Your task to perform on an android device: Show me some nice wallpapers for my desktop Image 0: 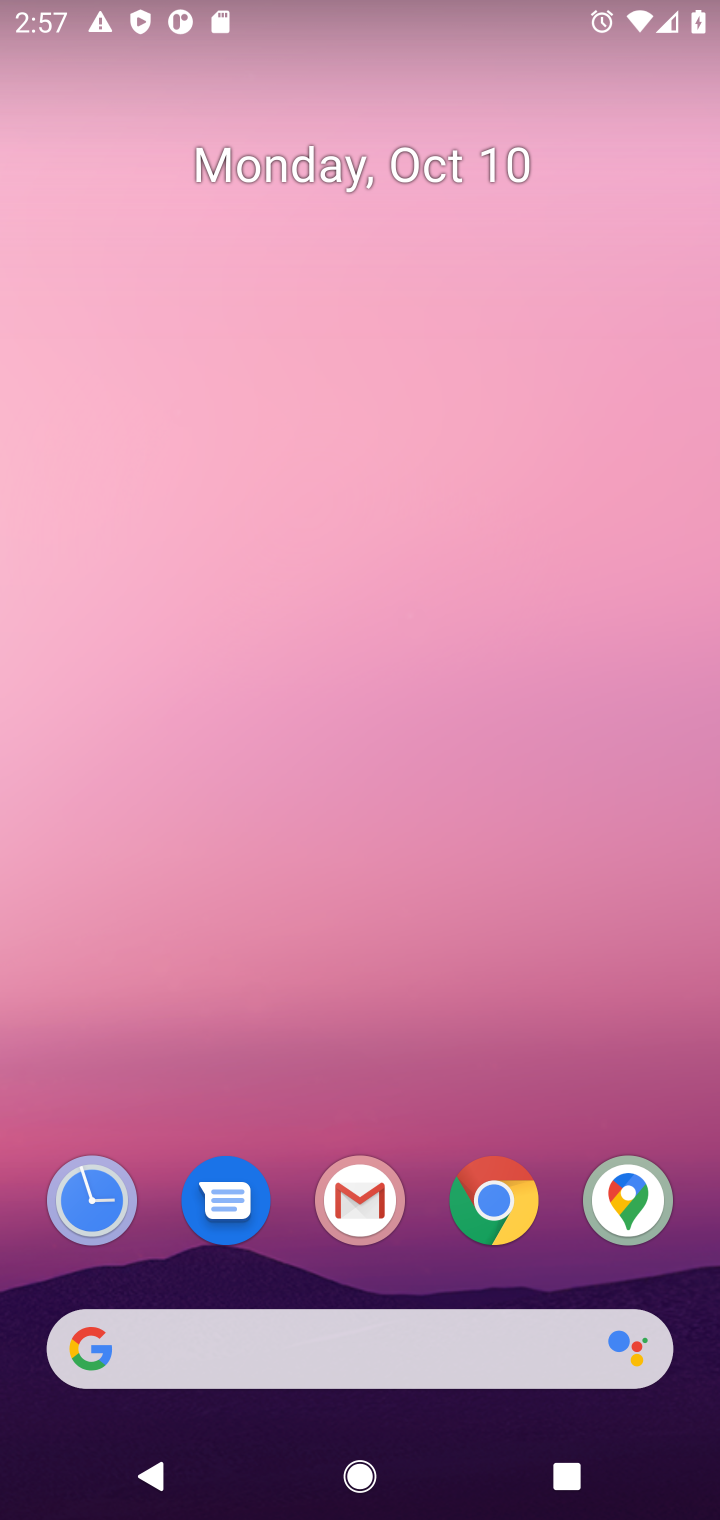
Step 0: click (487, 1216)
Your task to perform on an android device: Show me some nice wallpapers for my desktop Image 1: 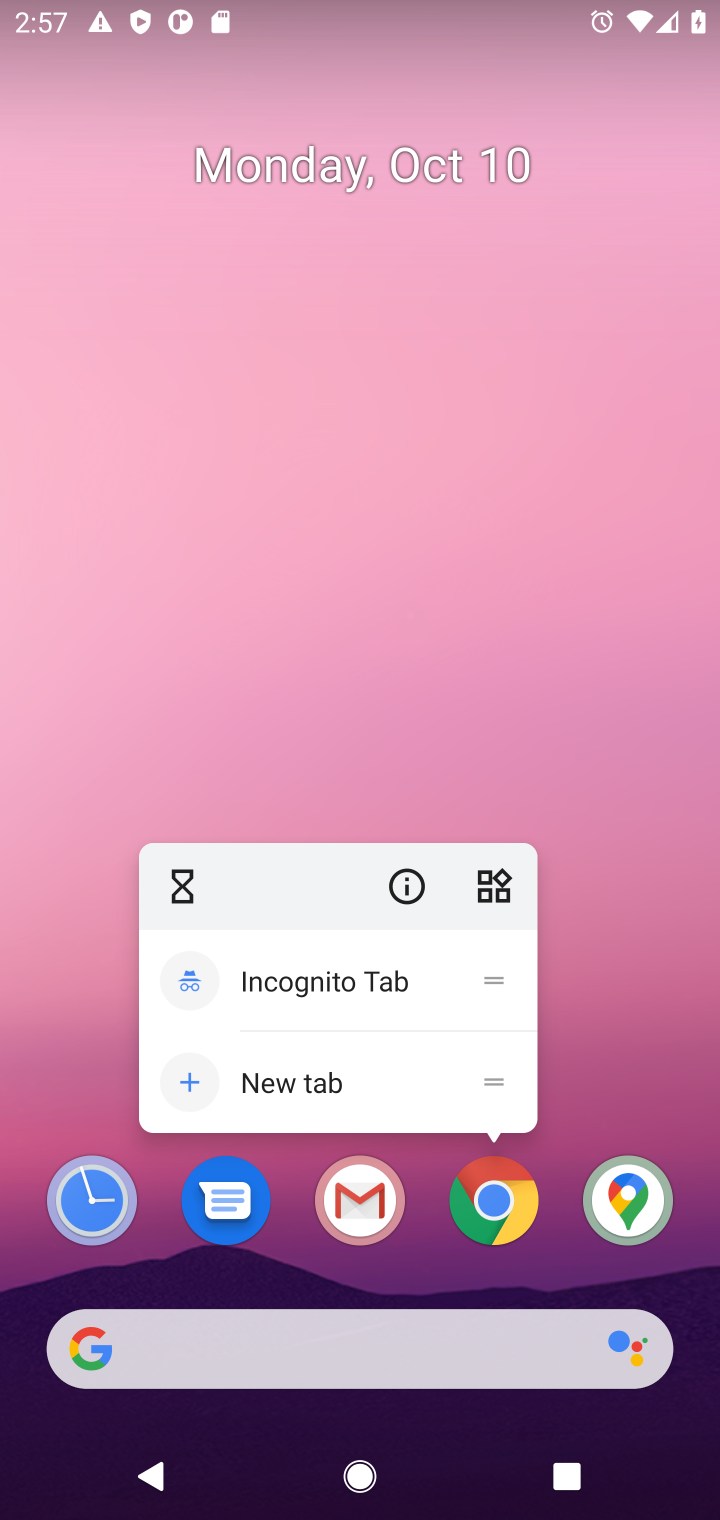
Step 1: click (487, 1216)
Your task to perform on an android device: Show me some nice wallpapers for my desktop Image 2: 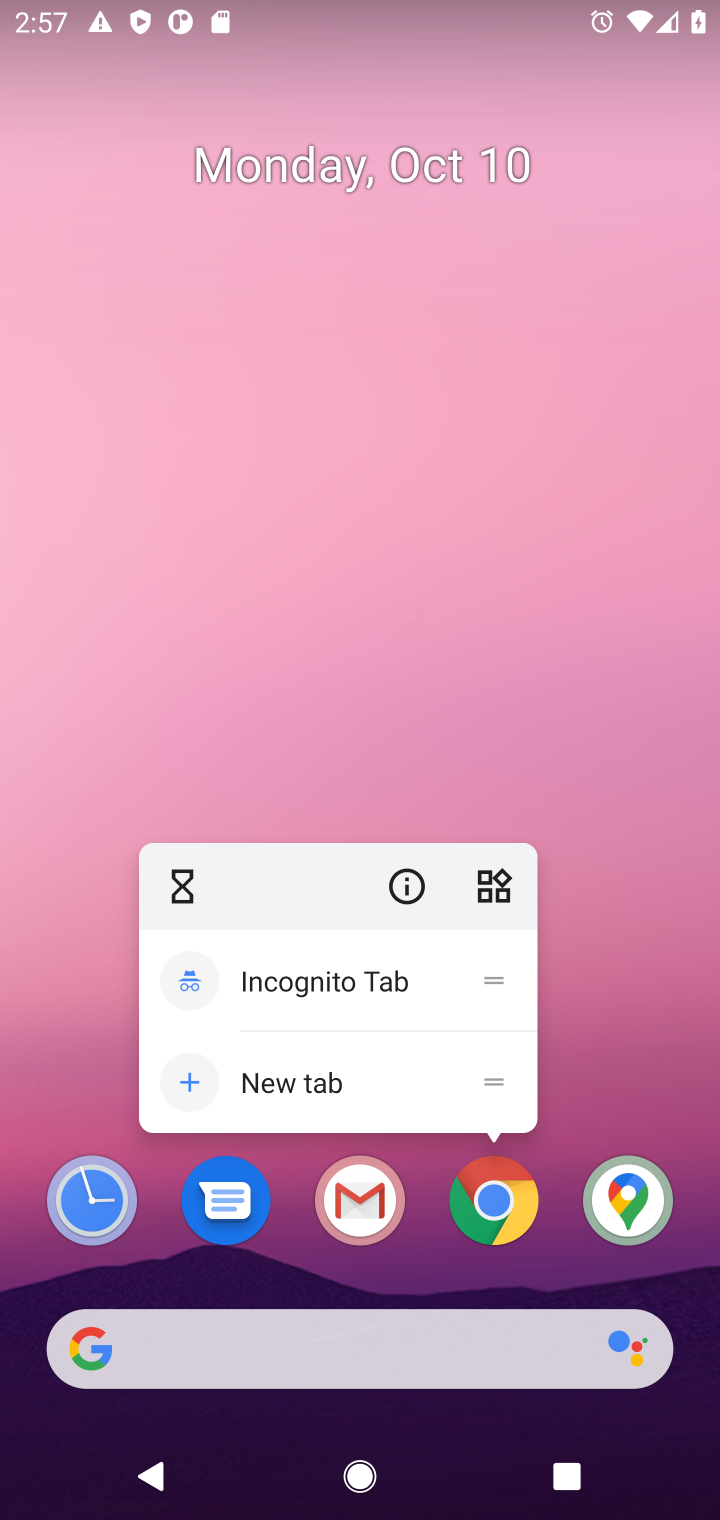
Step 2: click (487, 1216)
Your task to perform on an android device: Show me some nice wallpapers for my desktop Image 3: 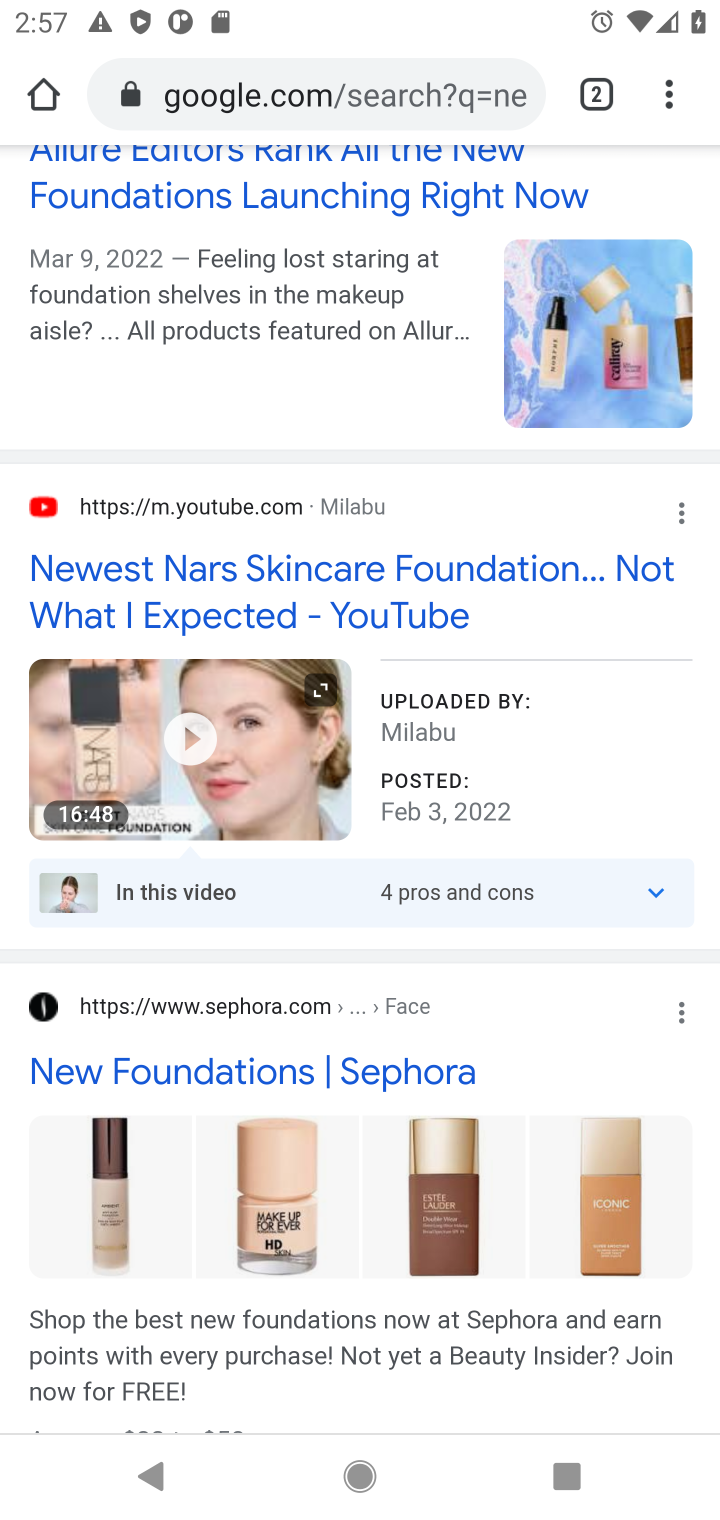
Step 3: click (344, 73)
Your task to perform on an android device: Show me some nice wallpapers for my desktop Image 4: 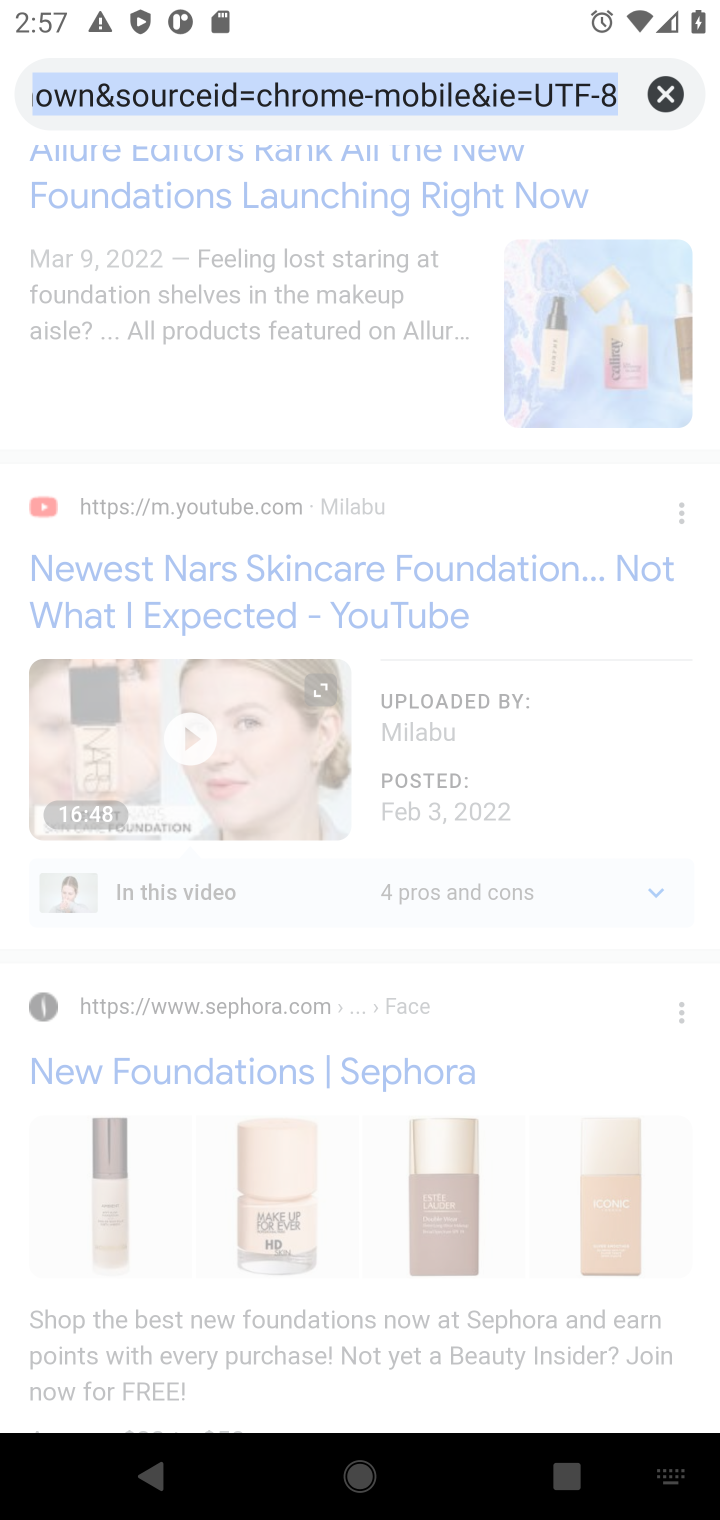
Step 4: type "some nice wallpapers for my desktop"
Your task to perform on an android device: Show me some nice wallpapers for my desktop Image 5: 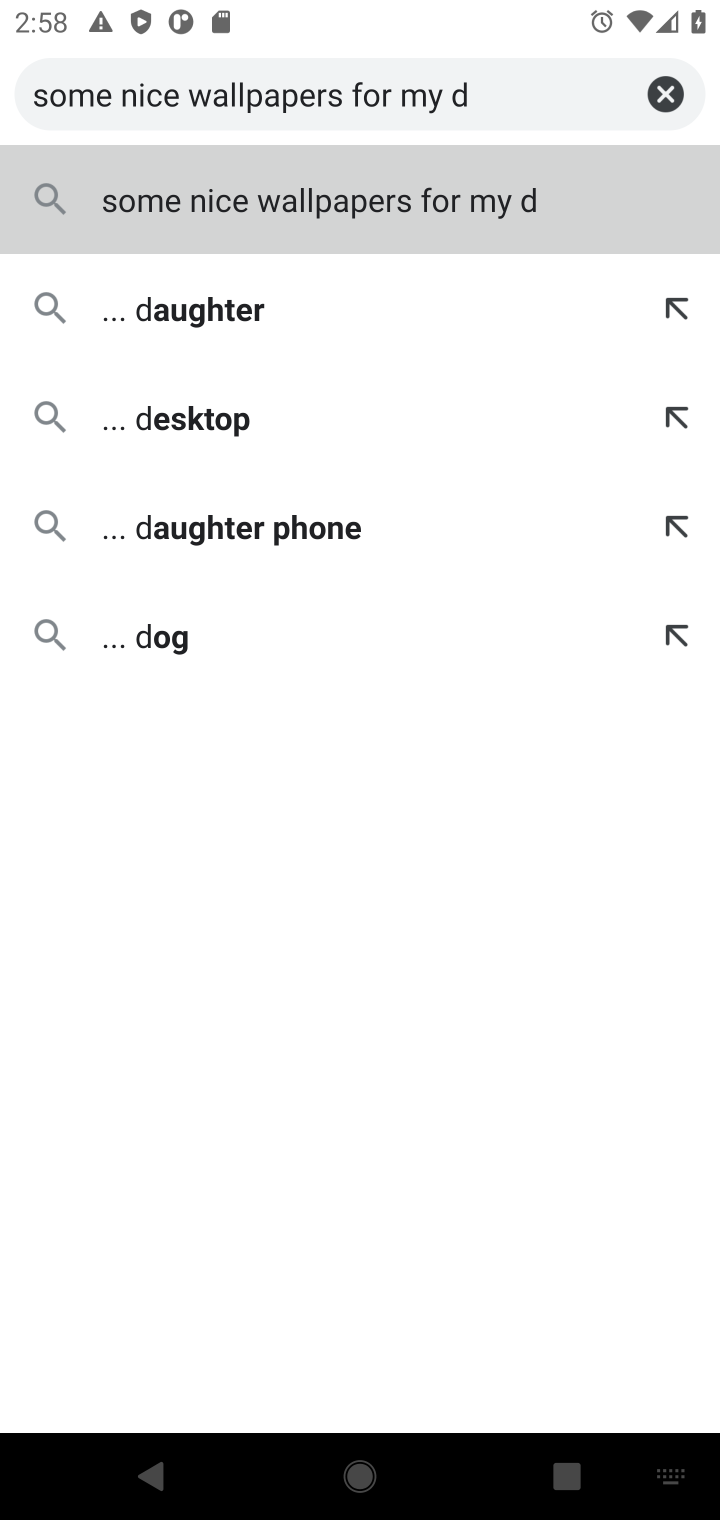
Step 5: type "esktop"
Your task to perform on an android device: Show me some nice wallpapers for my desktop Image 6: 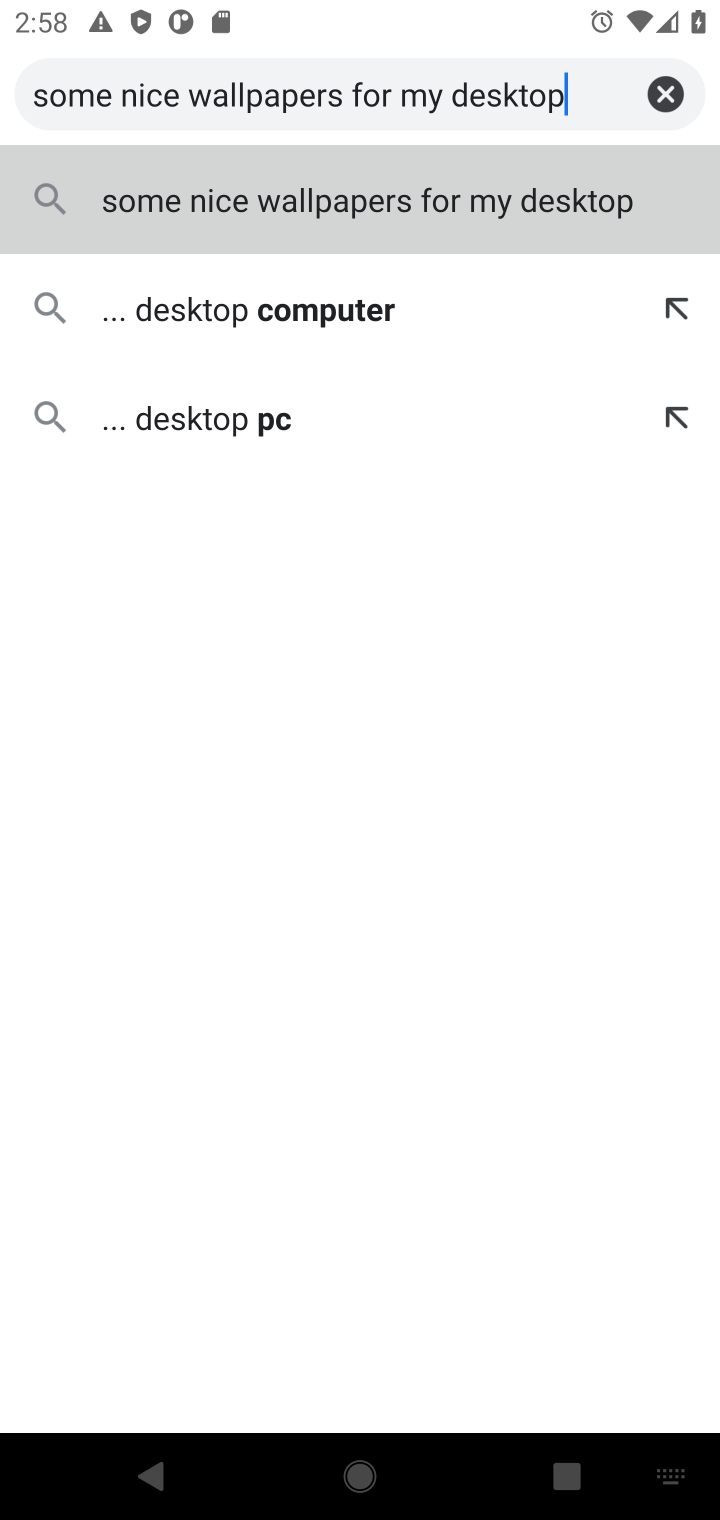
Step 6: click (521, 215)
Your task to perform on an android device: Show me some nice wallpapers for my desktop Image 7: 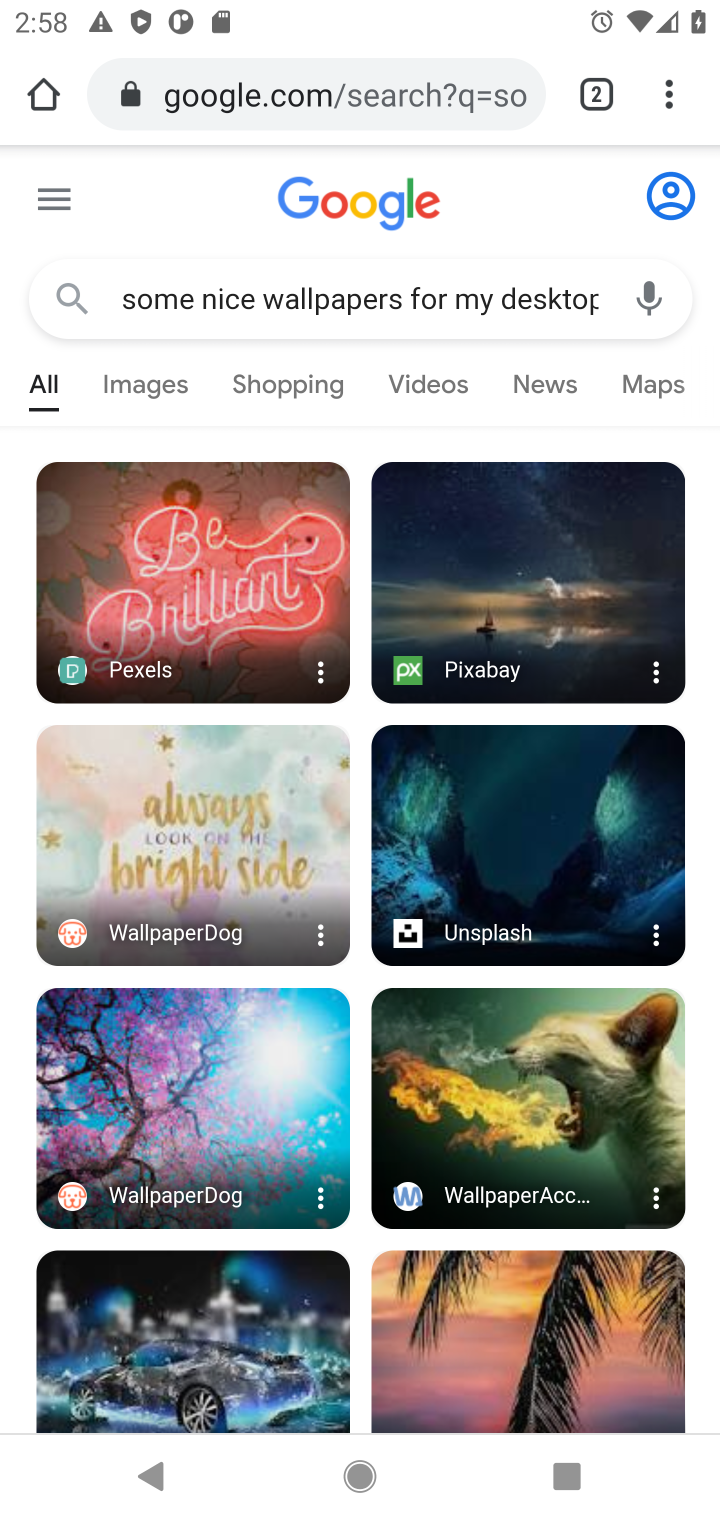
Step 7: task complete